Your task to perform on an android device: toggle pop-ups in chrome Image 0: 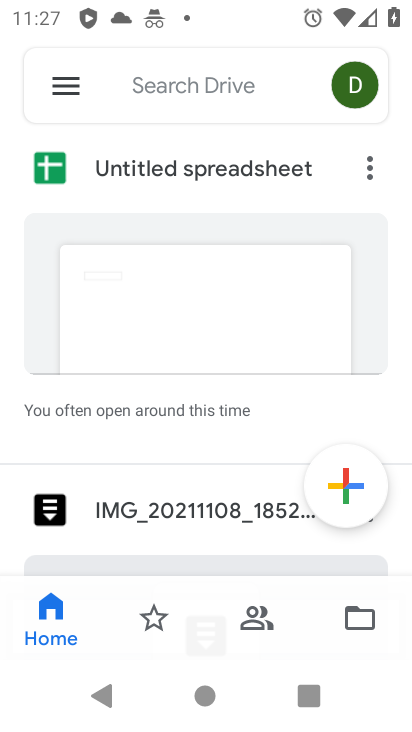
Step 0: press home button
Your task to perform on an android device: toggle pop-ups in chrome Image 1: 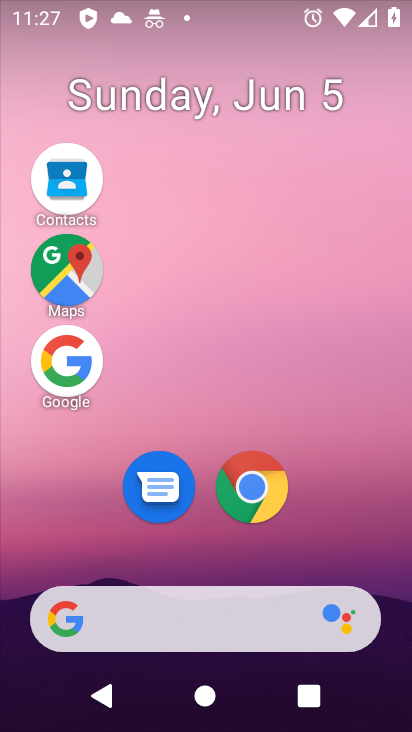
Step 1: drag from (192, 584) to (305, 23)
Your task to perform on an android device: toggle pop-ups in chrome Image 2: 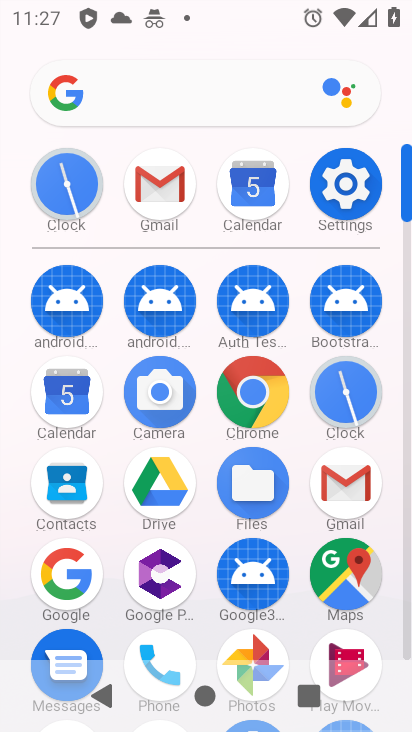
Step 2: click (264, 408)
Your task to perform on an android device: toggle pop-ups in chrome Image 3: 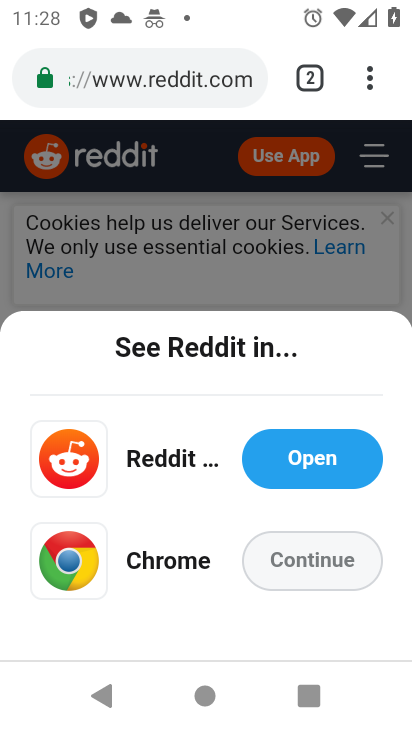
Step 3: click (365, 86)
Your task to perform on an android device: toggle pop-ups in chrome Image 4: 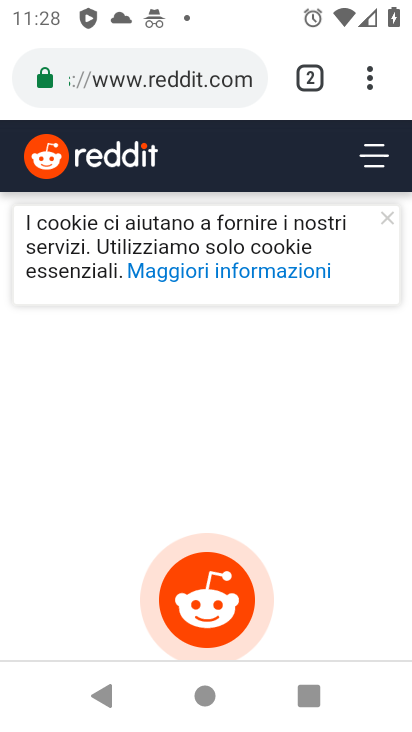
Step 4: click (358, 76)
Your task to perform on an android device: toggle pop-ups in chrome Image 5: 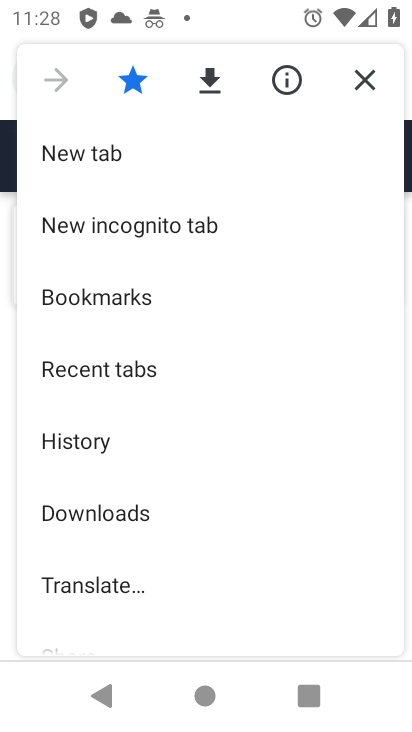
Step 5: drag from (183, 449) to (193, 262)
Your task to perform on an android device: toggle pop-ups in chrome Image 6: 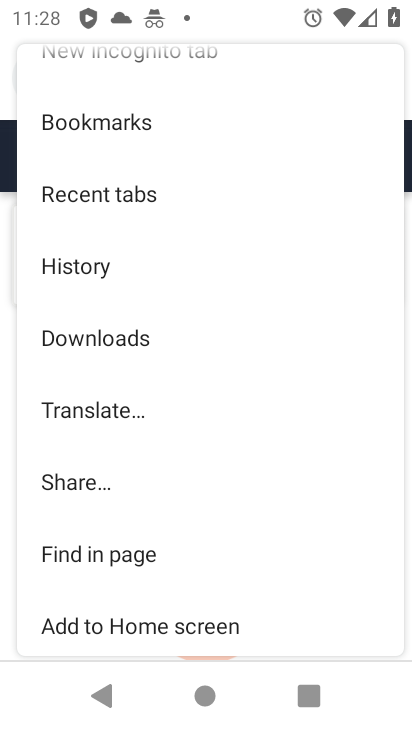
Step 6: drag from (138, 547) to (155, 174)
Your task to perform on an android device: toggle pop-ups in chrome Image 7: 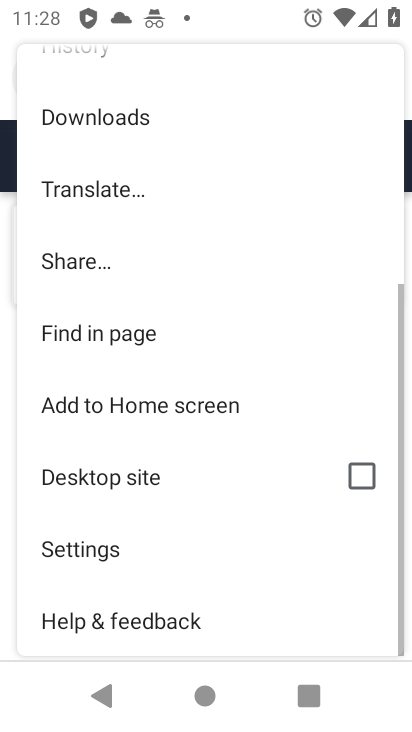
Step 7: click (102, 546)
Your task to perform on an android device: toggle pop-ups in chrome Image 8: 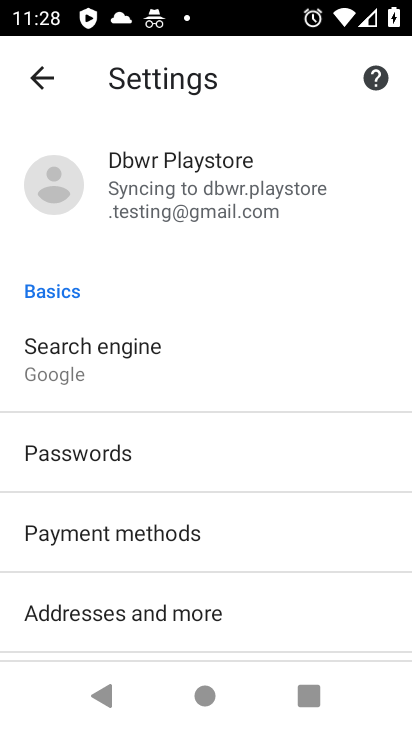
Step 8: drag from (114, 509) to (117, 117)
Your task to perform on an android device: toggle pop-ups in chrome Image 9: 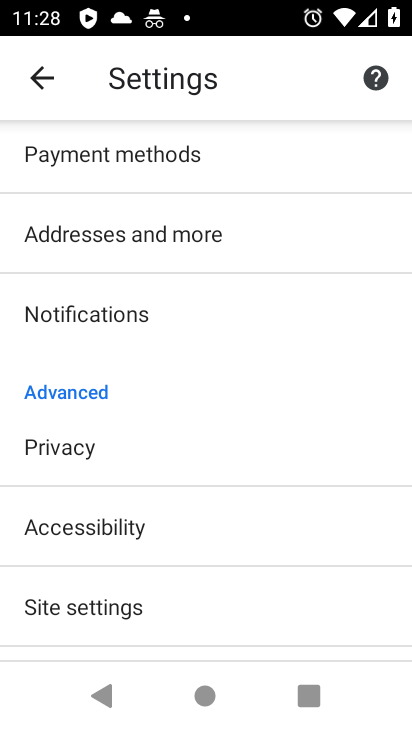
Step 9: drag from (126, 553) to (128, 344)
Your task to perform on an android device: toggle pop-ups in chrome Image 10: 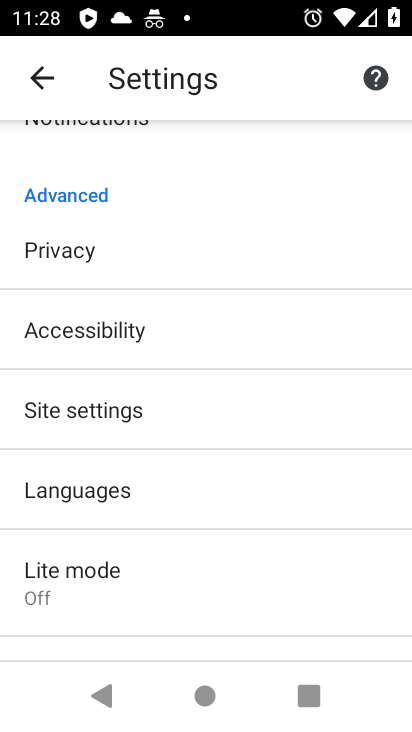
Step 10: click (130, 410)
Your task to perform on an android device: toggle pop-ups in chrome Image 11: 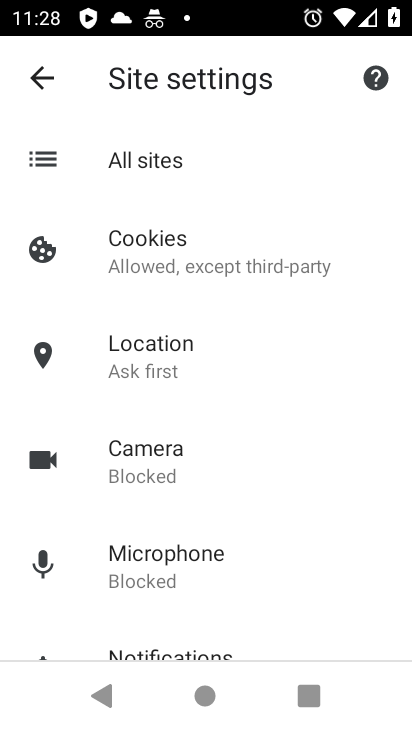
Step 11: drag from (173, 545) to (207, 248)
Your task to perform on an android device: toggle pop-ups in chrome Image 12: 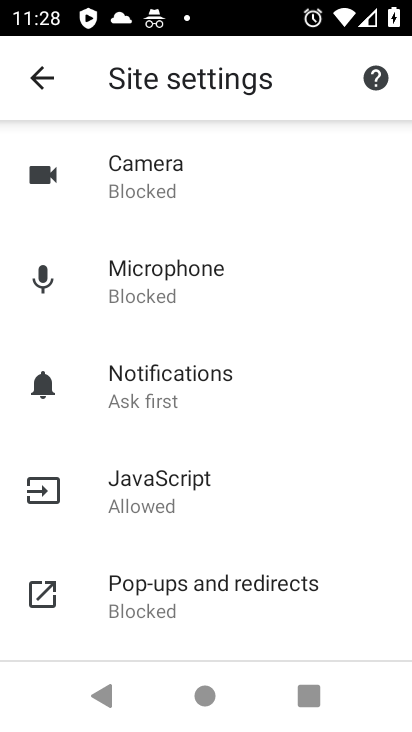
Step 12: click (230, 607)
Your task to perform on an android device: toggle pop-ups in chrome Image 13: 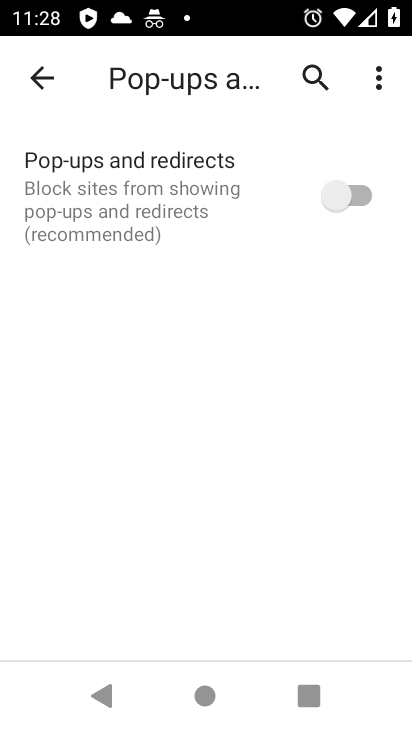
Step 13: click (367, 185)
Your task to perform on an android device: toggle pop-ups in chrome Image 14: 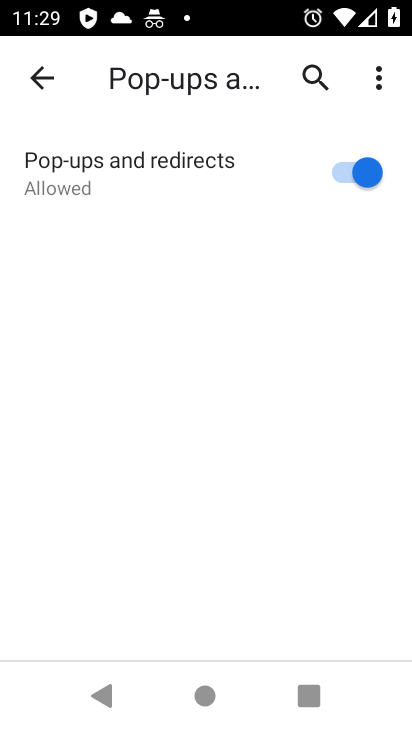
Step 14: task complete